Your task to perform on an android device: Go to Wikipedia Image 0: 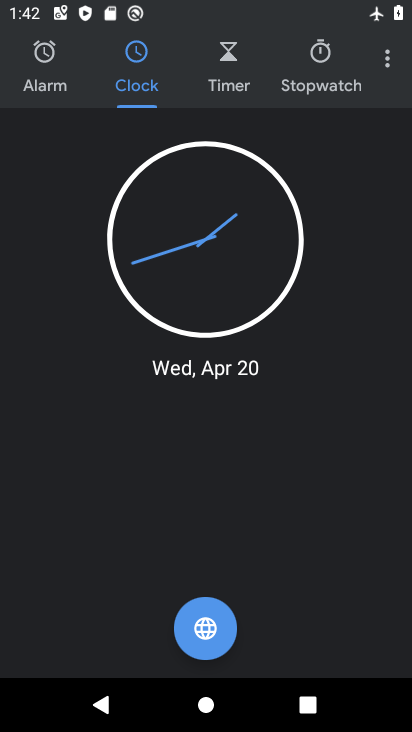
Step 0: press home button
Your task to perform on an android device: Go to Wikipedia Image 1: 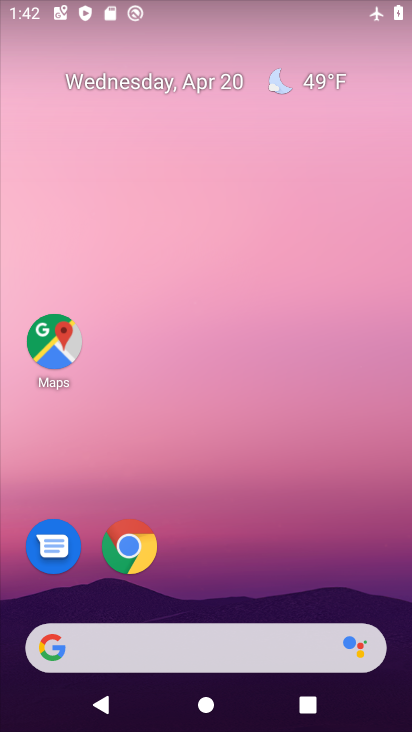
Step 1: drag from (261, 458) to (261, 209)
Your task to perform on an android device: Go to Wikipedia Image 2: 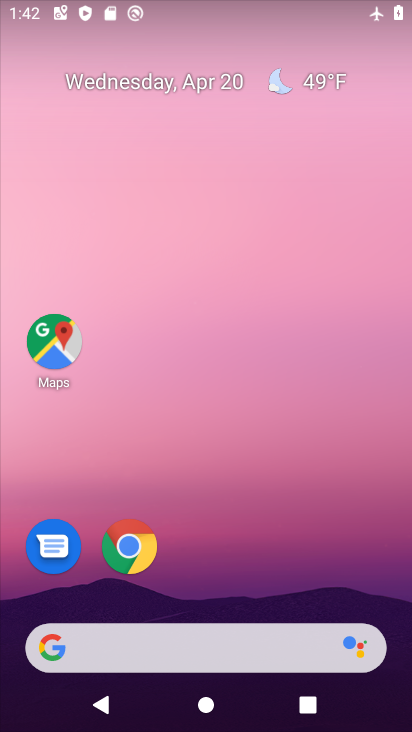
Step 2: drag from (226, 528) to (250, 228)
Your task to perform on an android device: Go to Wikipedia Image 3: 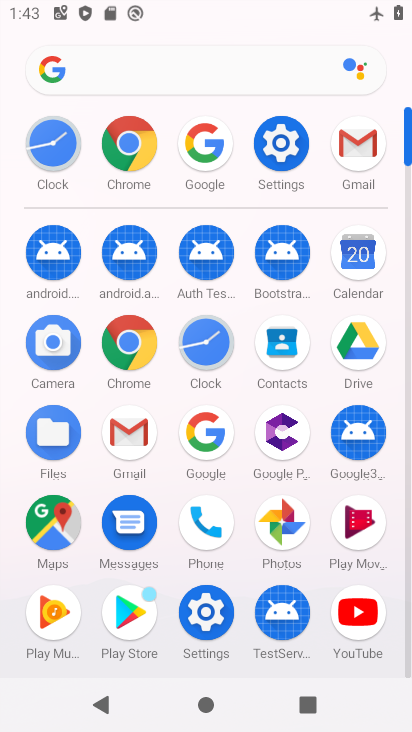
Step 3: click (124, 144)
Your task to perform on an android device: Go to Wikipedia Image 4: 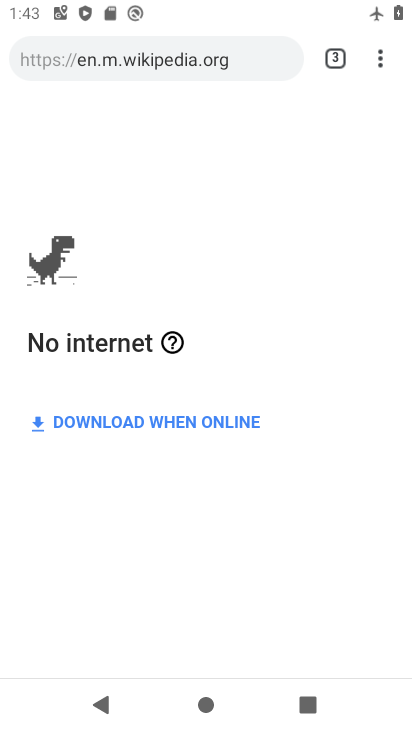
Step 4: click (374, 63)
Your task to perform on an android device: Go to Wikipedia Image 5: 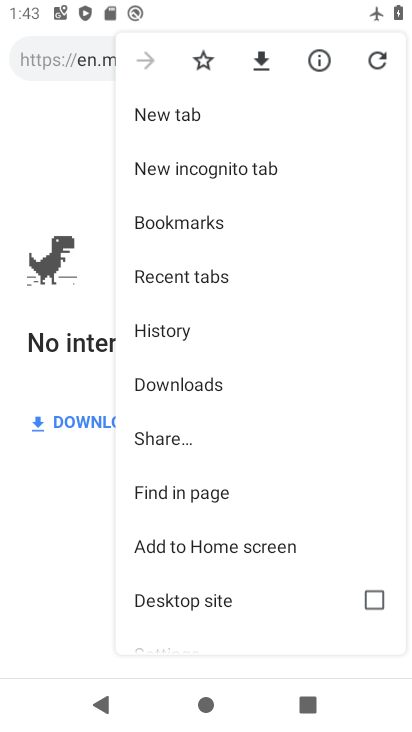
Step 5: click (214, 120)
Your task to perform on an android device: Go to Wikipedia Image 6: 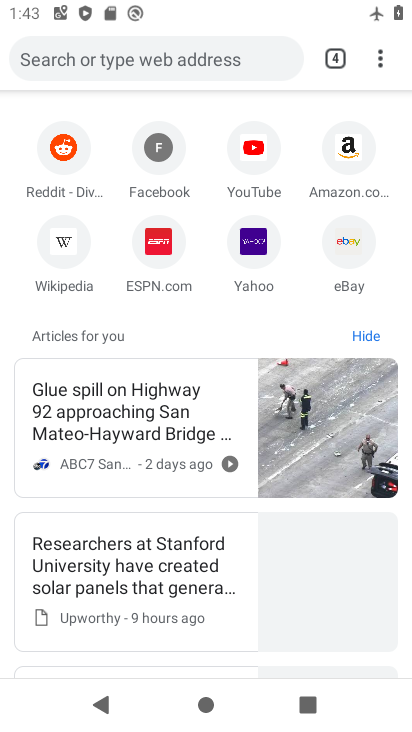
Step 6: click (62, 236)
Your task to perform on an android device: Go to Wikipedia Image 7: 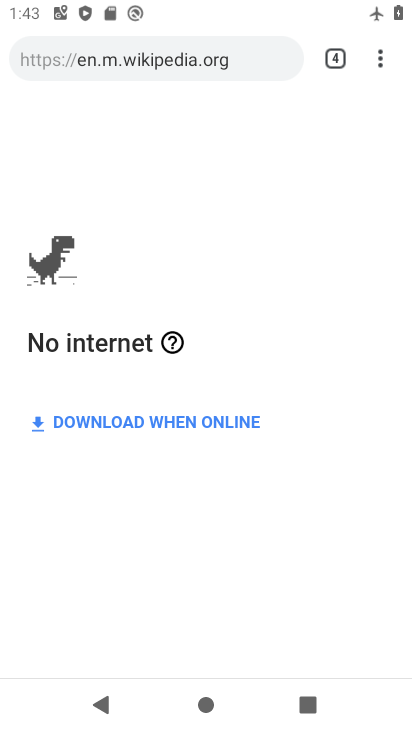
Step 7: task complete